Your task to perform on an android device: add a contact in the contacts app Image 0: 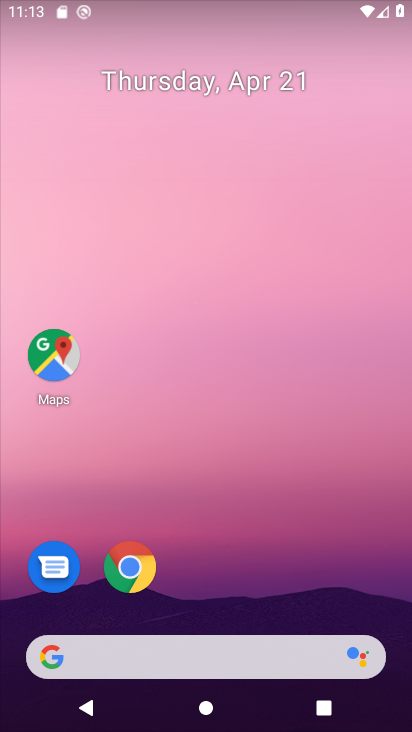
Step 0: drag from (338, 521) to (333, 102)
Your task to perform on an android device: add a contact in the contacts app Image 1: 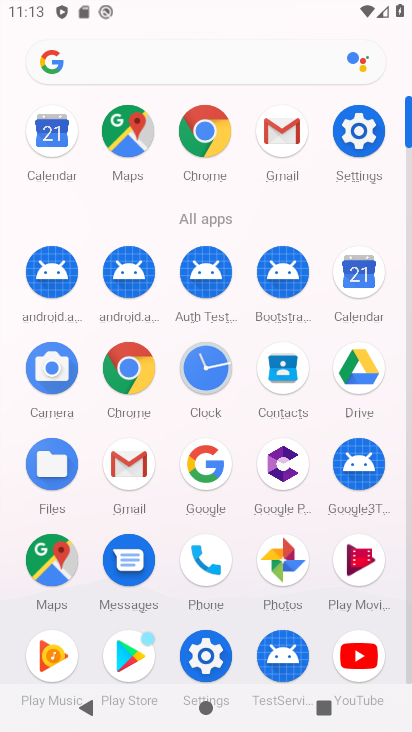
Step 1: click (279, 375)
Your task to perform on an android device: add a contact in the contacts app Image 2: 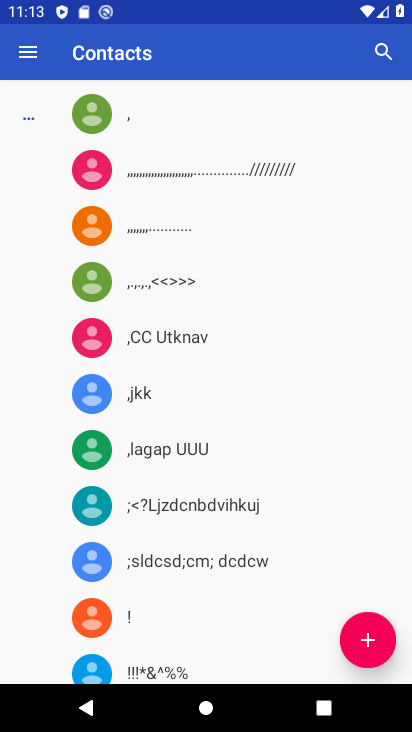
Step 2: click (368, 642)
Your task to perform on an android device: add a contact in the contacts app Image 3: 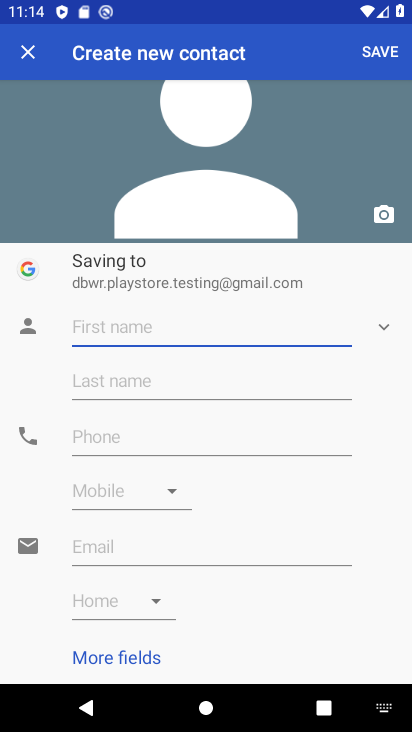
Step 3: type "dharmendar"
Your task to perform on an android device: add a contact in the contacts app Image 4: 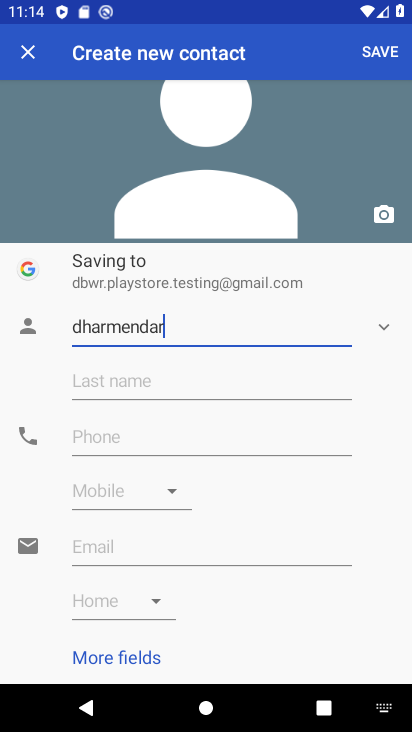
Step 4: click (271, 440)
Your task to perform on an android device: add a contact in the contacts app Image 5: 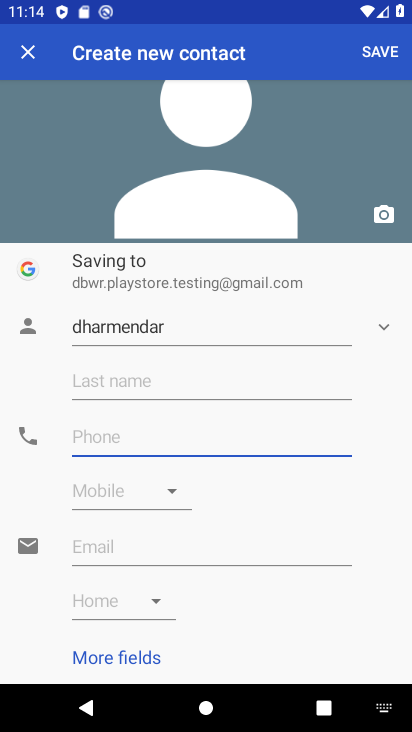
Step 5: type "9877655658"
Your task to perform on an android device: add a contact in the contacts app Image 6: 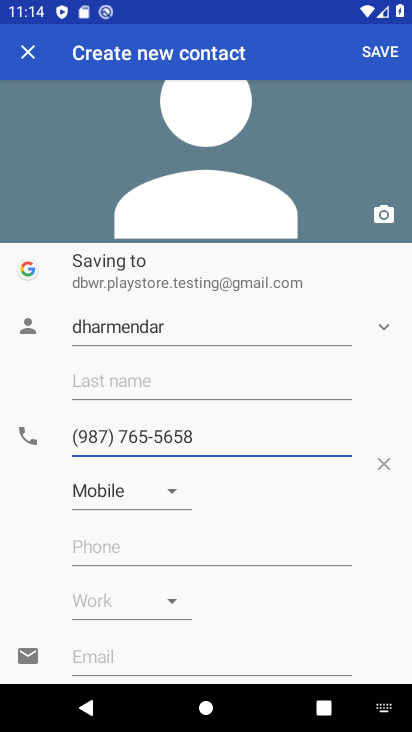
Step 6: click (385, 54)
Your task to perform on an android device: add a contact in the contacts app Image 7: 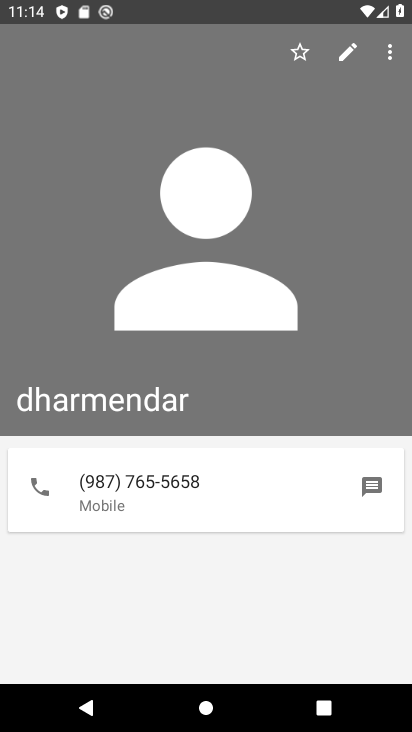
Step 7: task complete